Your task to perform on an android device: change the clock display to analog Image 0: 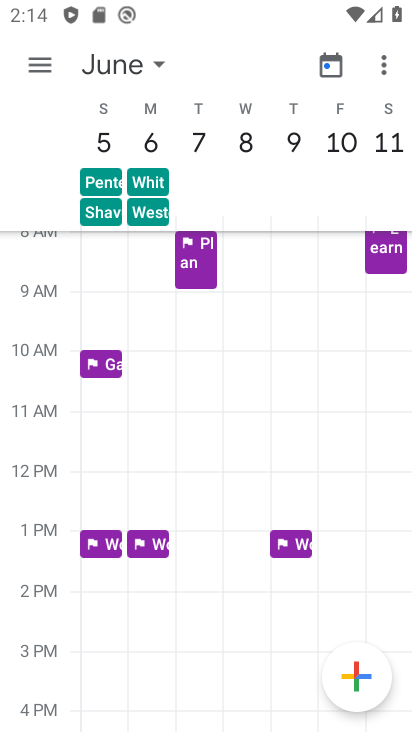
Step 0: press home button
Your task to perform on an android device: change the clock display to analog Image 1: 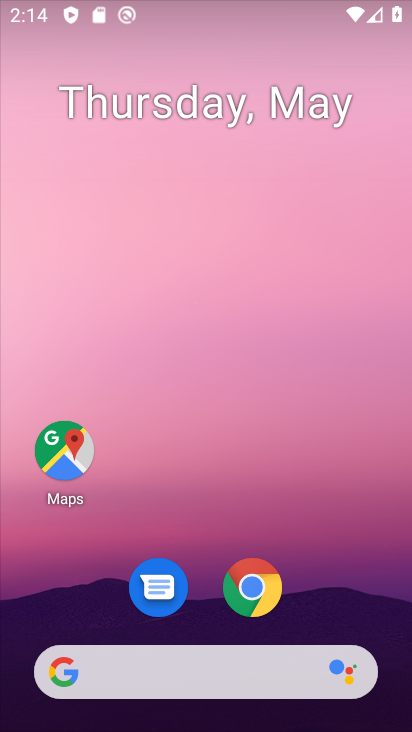
Step 1: drag from (341, 572) to (344, 219)
Your task to perform on an android device: change the clock display to analog Image 2: 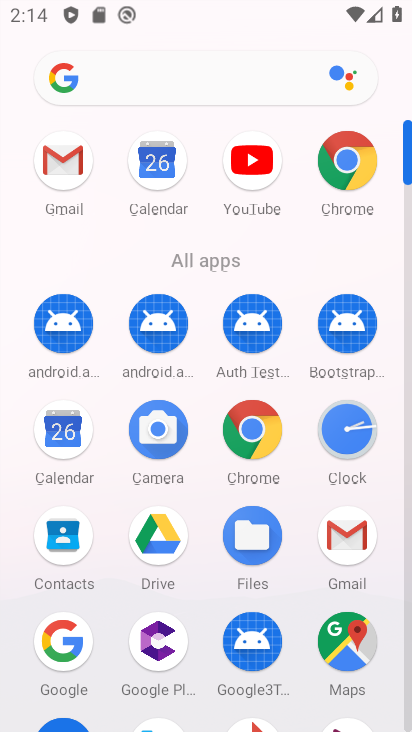
Step 2: click (343, 422)
Your task to perform on an android device: change the clock display to analog Image 3: 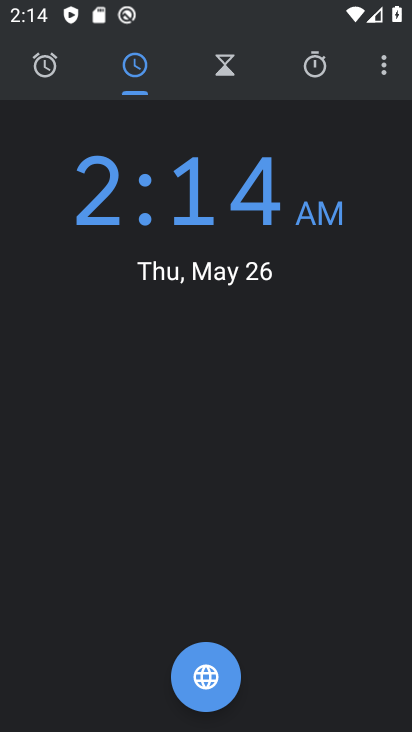
Step 3: click (376, 68)
Your task to perform on an android device: change the clock display to analog Image 4: 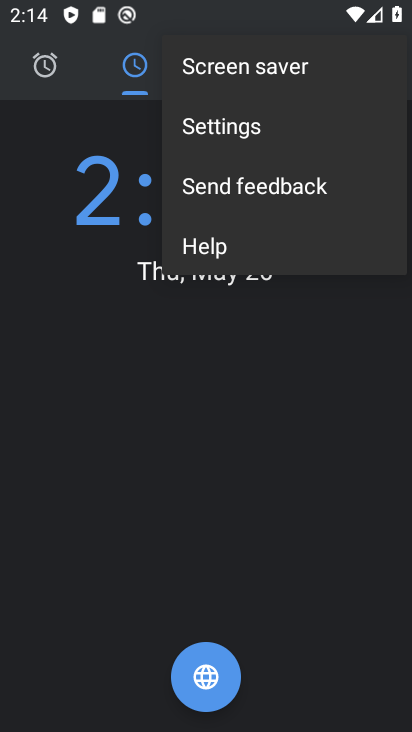
Step 4: click (254, 142)
Your task to perform on an android device: change the clock display to analog Image 5: 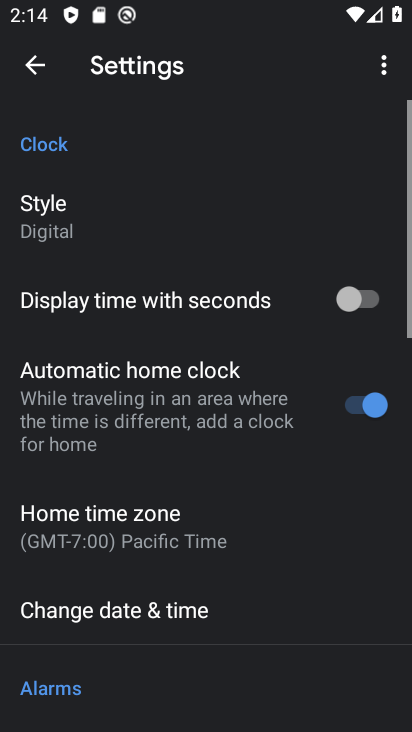
Step 5: click (85, 218)
Your task to perform on an android device: change the clock display to analog Image 6: 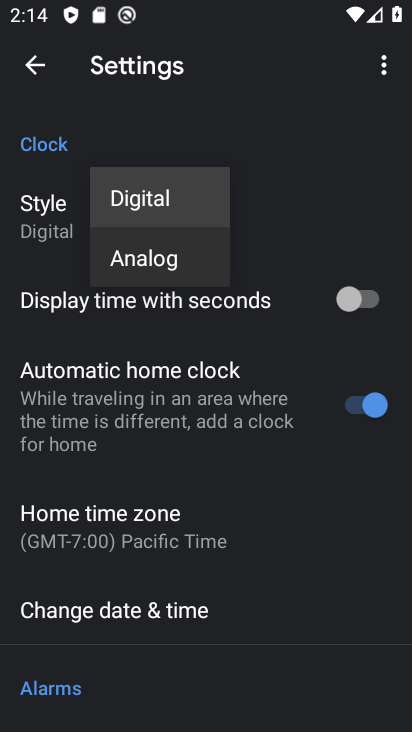
Step 6: click (124, 267)
Your task to perform on an android device: change the clock display to analog Image 7: 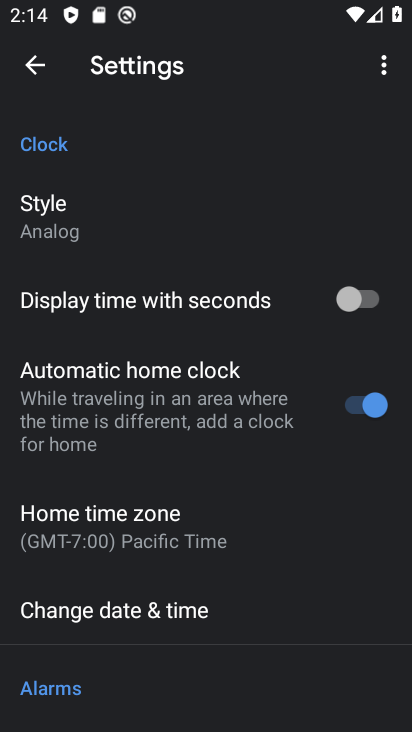
Step 7: task complete